Your task to perform on an android device: change your default location settings in chrome Image 0: 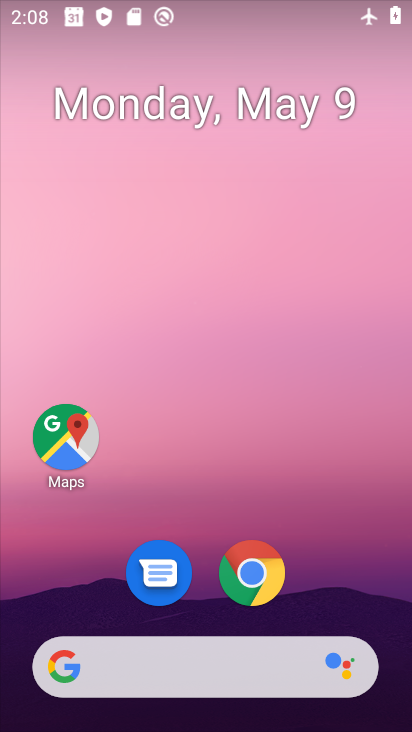
Step 0: drag from (317, 585) to (316, 226)
Your task to perform on an android device: change your default location settings in chrome Image 1: 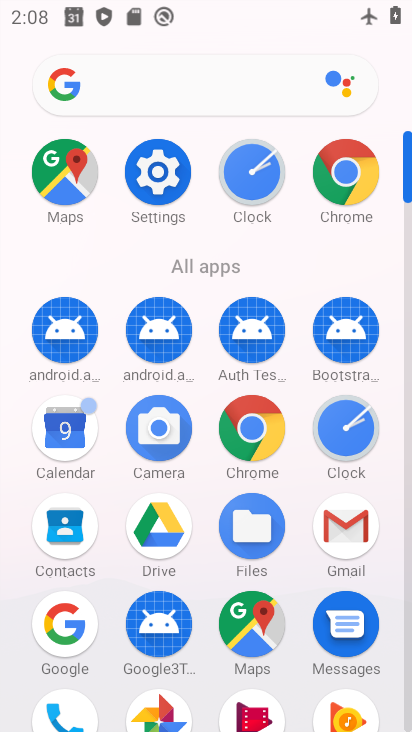
Step 1: click (333, 174)
Your task to perform on an android device: change your default location settings in chrome Image 2: 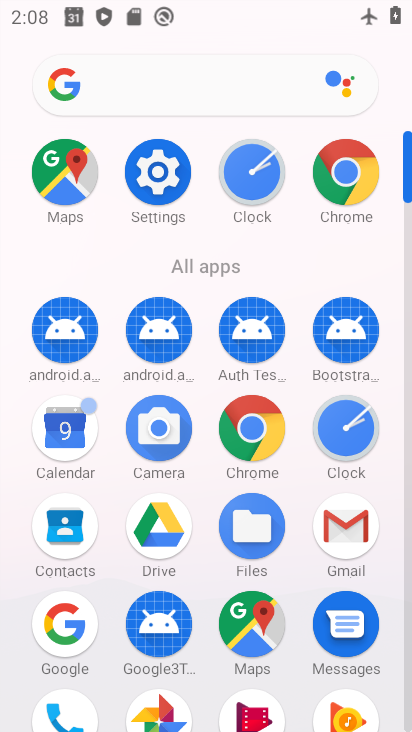
Step 2: click (340, 170)
Your task to perform on an android device: change your default location settings in chrome Image 3: 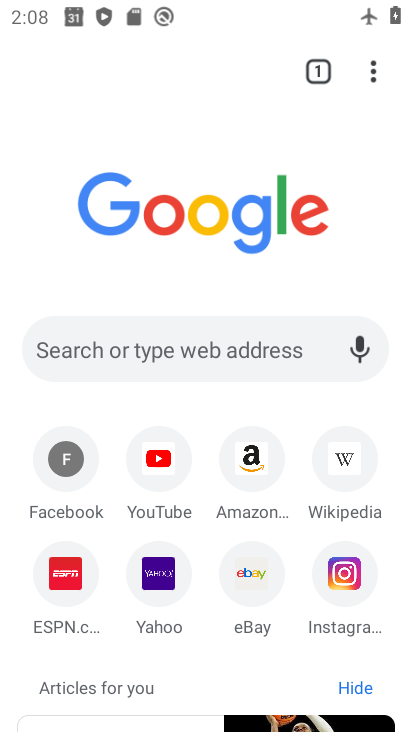
Step 3: drag from (373, 73) to (112, 595)
Your task to perform on an android device: change your default location settings in chrome Image 4: 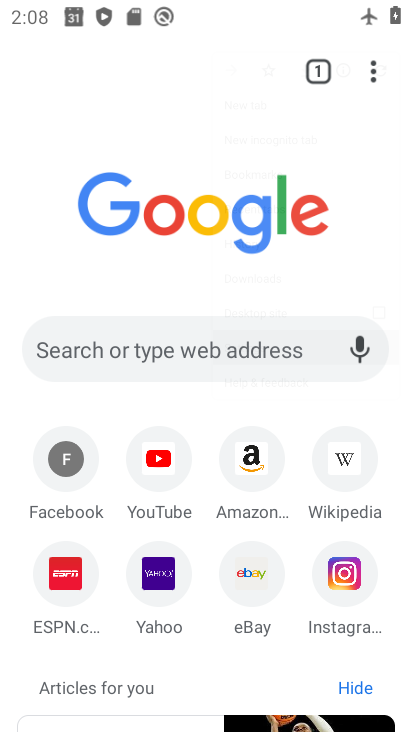
Step 4: click (112, 595)
Your task to perform on an android device: change your default location settings in chrome Image 5: 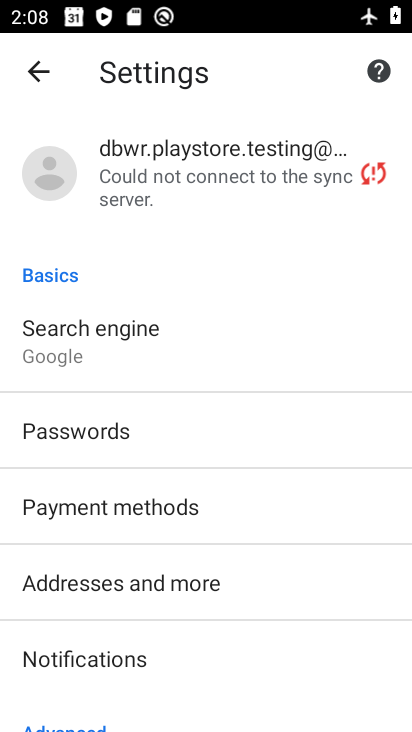
Step 5: drag from (142, 559) to (199, 257)
Your task to perform on an android device: change your default location settings in chrome Image 6: 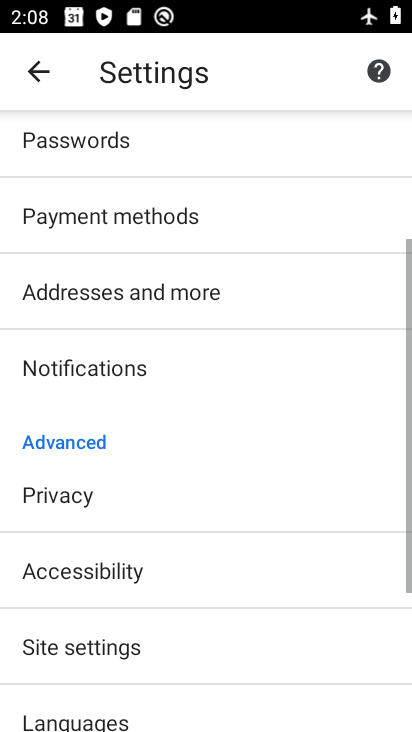
Step 6: click (195, 245)
Your task to perform on an android device: change your default location settings in chrome Image 7: 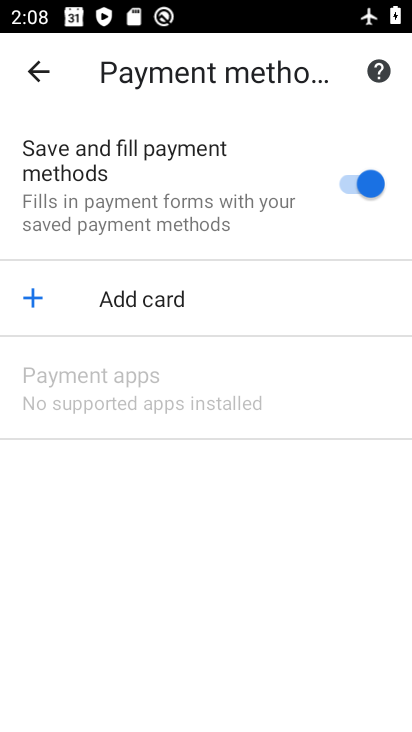
Step 7: click (33, 66)
Your task to perform on an android device: change your default location settings in chrome Image 8: 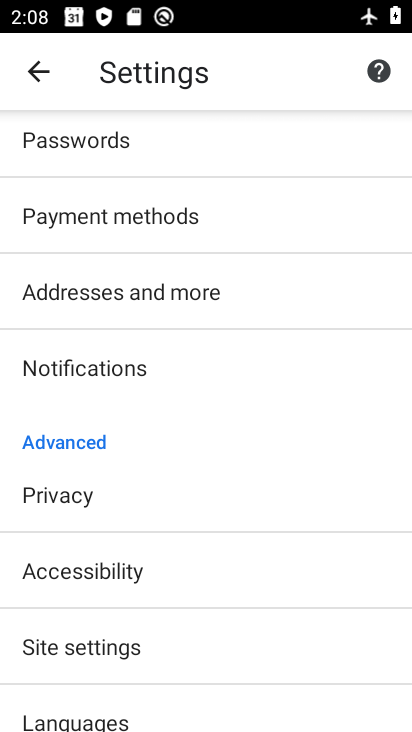
Step 8: drag from (85, 680) to (119, 314)
Your task to perform on an android device: change your default location settings in chrome Image 9: 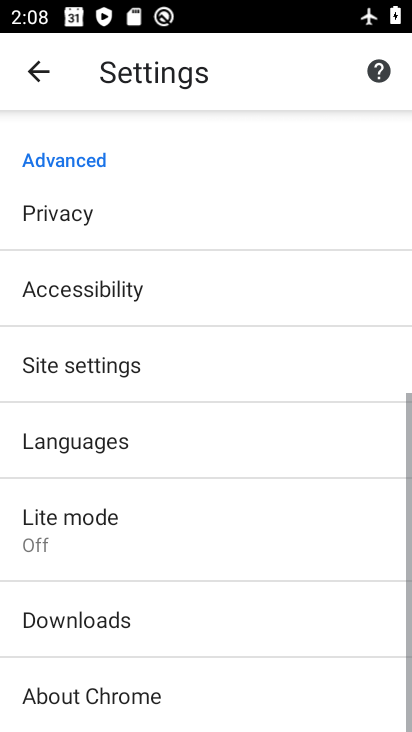
Step 9: click (63, 363)
Your task to perform on an android device: change your default location settings in chrome Image 10: 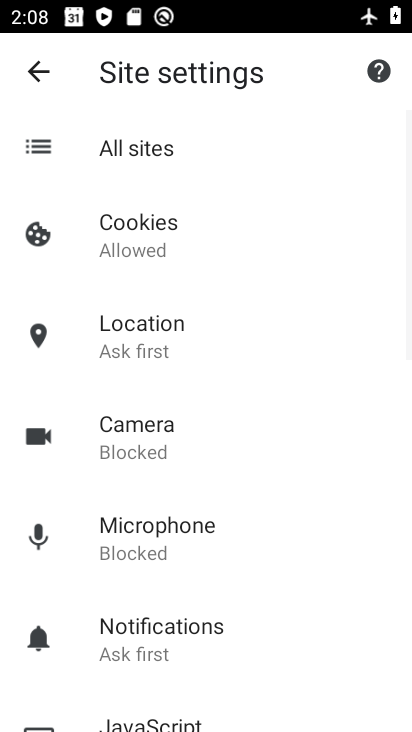
Step 10: click (134, 326)
Your task to perform on an android device: change your default location settings in chrome Image 11: 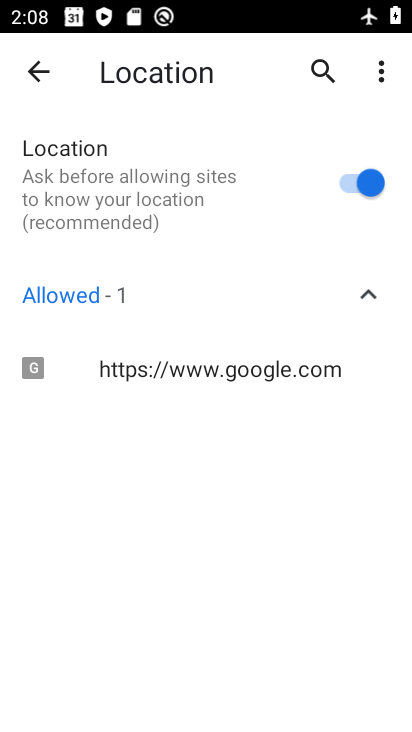
Step 11: click (353, 197)
Your task to perform on an android device: change your default location settings in chrome Image 12: 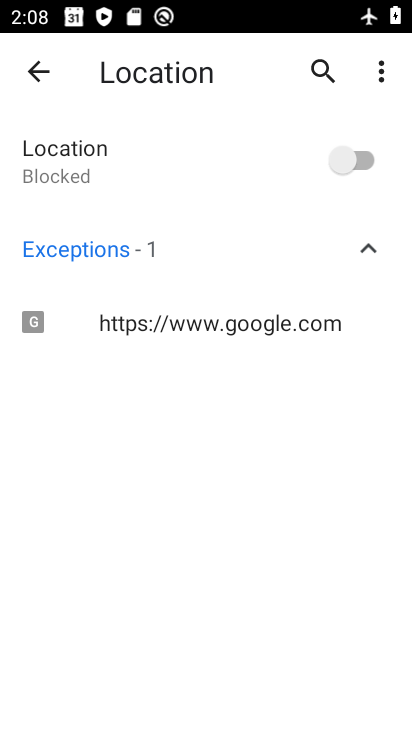
Step 12: click (363, 185)
Your task to perform on an android device: change your default location settings in chrome Image 13: 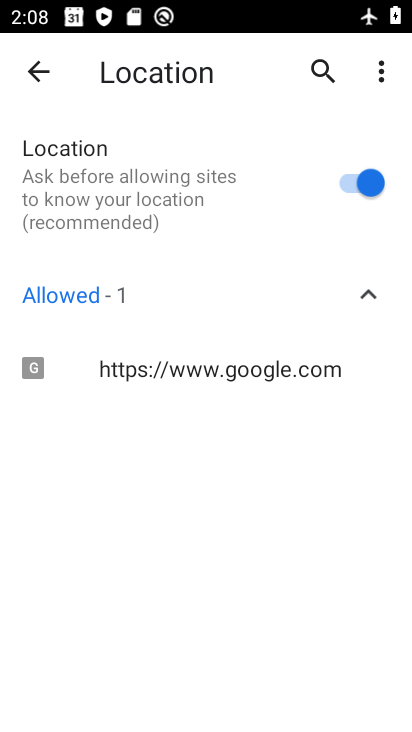
Step 13: click (367, 174)
Your task to perform on an android device: change your default location settings in chrome Image 14: 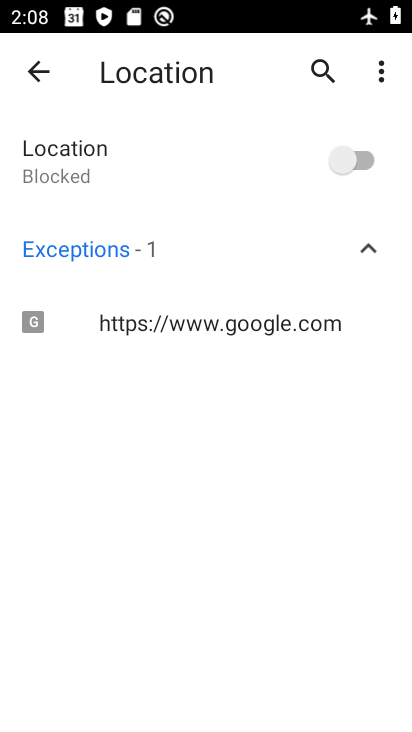
Step 14: task complete